Your task to perform on an android device: Open maps Image 0: 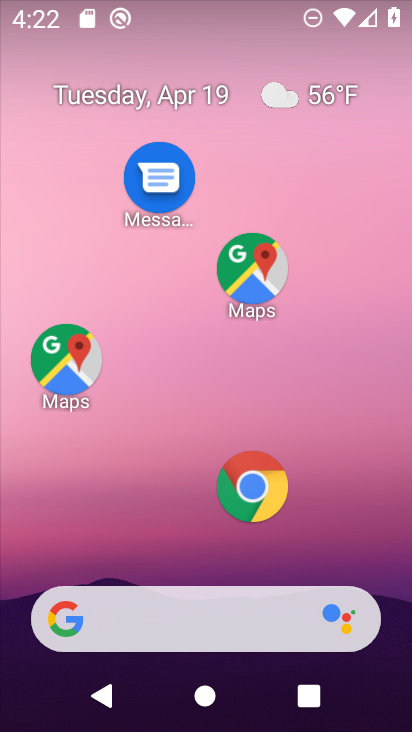
Step 0: drag from (190, 574) to (189, 39)
Your task to perform on an android device: Open maps Image 1: 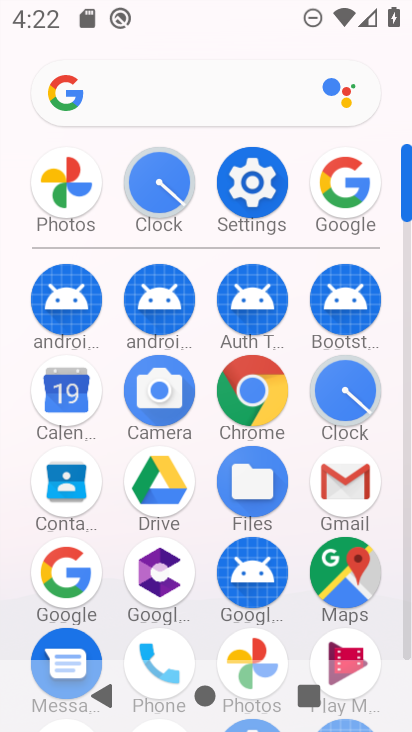
Step 1: click (337, 594)
Your task to perform on an android device: Open maps Image 2: 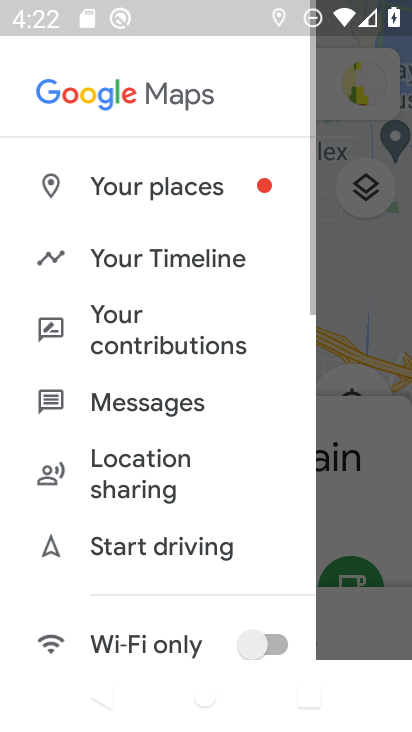
Step 2: click (383, 440)
Your task to perform on an android device: Open maps Image 3: 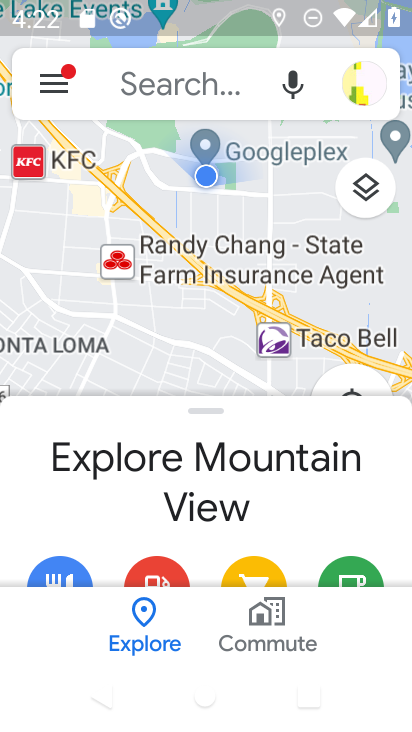
Step 3: task complete